Your task to perform on an android device: Show me popular games on the Play Store Image 0: 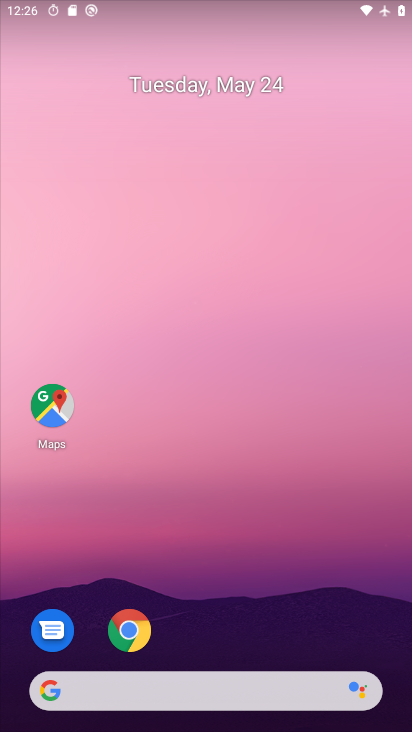
Step 0: drag from (187, 673) to (221, 210)
Your task to perform on an android device: Show me popular games on the Play Store Image 1: 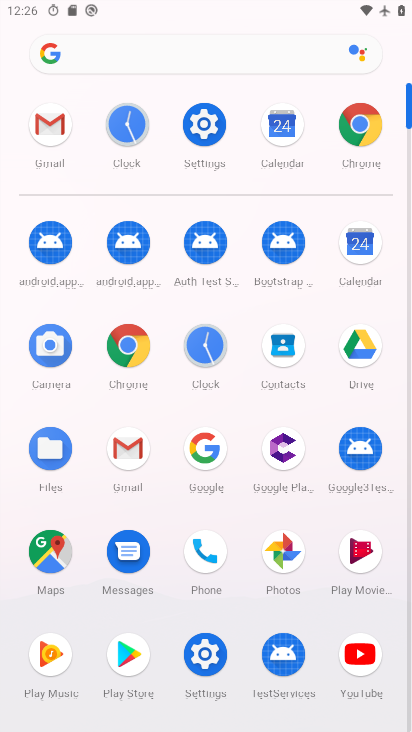
Step 1: drag from (134, 582) to (149, 357)
Your task to perform on an android device: Show me popular games on the Play Store Image 2: 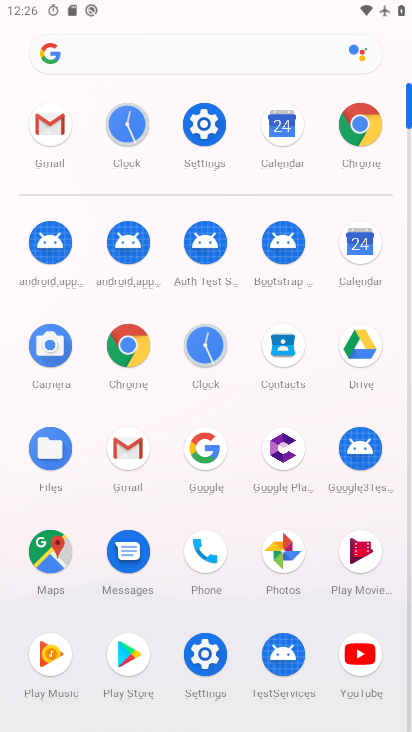
Step 2: click (129, 652)
Your task to perform on an android device: Show me popular games on the Play Store Image 3: 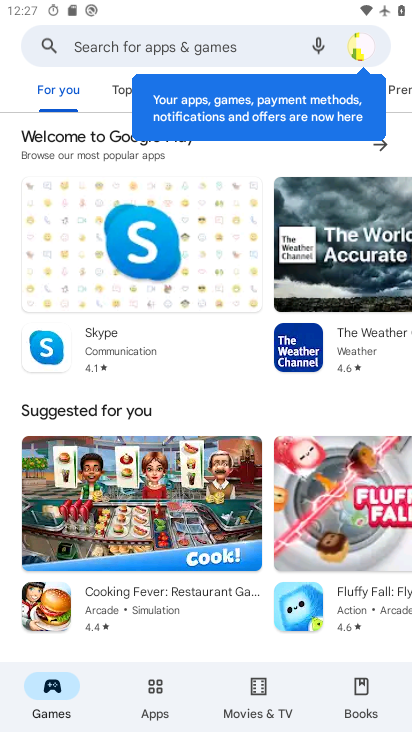
Step 3: drag from (81, 92) to (0, 79)
Your task to perform on an android device: Show me popular games on the Play Store Image 4: 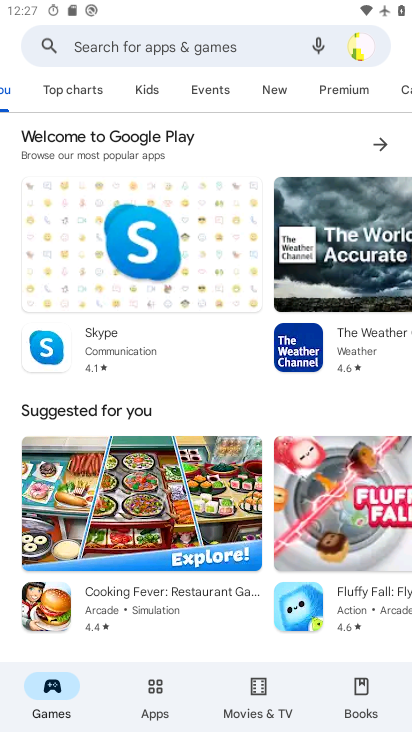
Step 4: click (68, 92)
Your task to perform on an android device: Show me popular games on the Play Store Image 5: 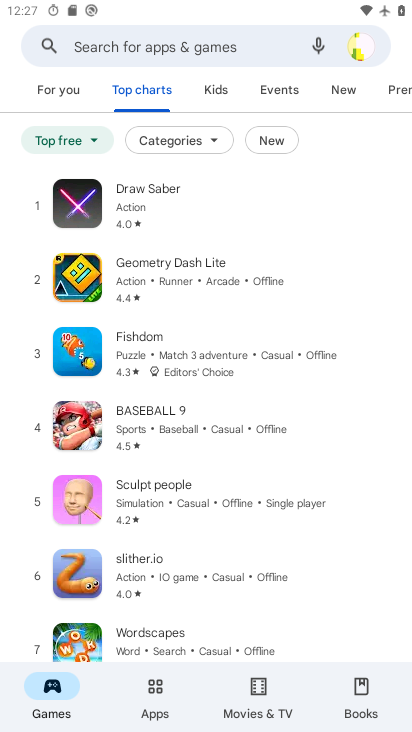
Step 5: task complete